Your task to perform on an android device: turn on the 24-hour format for clock Image 0: 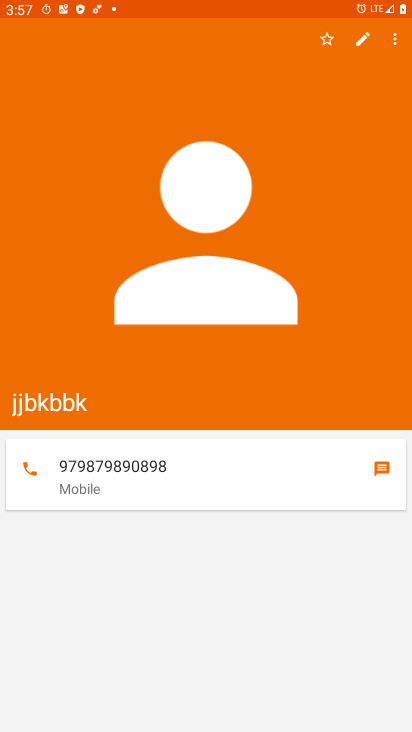
Step 0: press home button
Your task to perform on an android device: turn on the 24-hour format for clock Image 1: 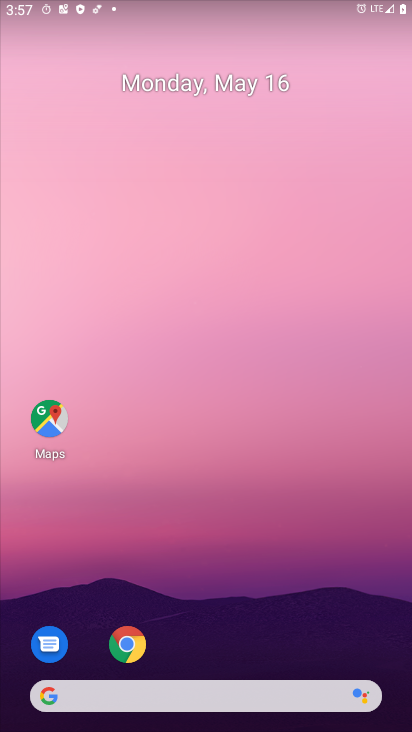
Step 1: drag from (280, 699) to (303, 188)
Your task to perform on an android device: turn on the 24-hour format for clock Image 2: 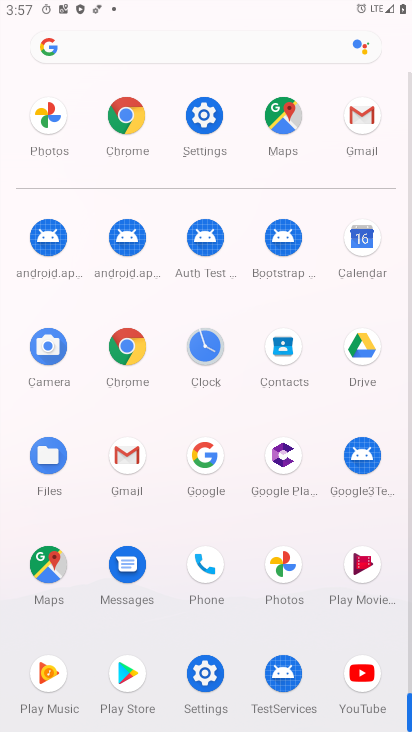
Step 2: click (202, 341)
Your task to perform on an android device: turn on the 24-hour format for clock Image 3: 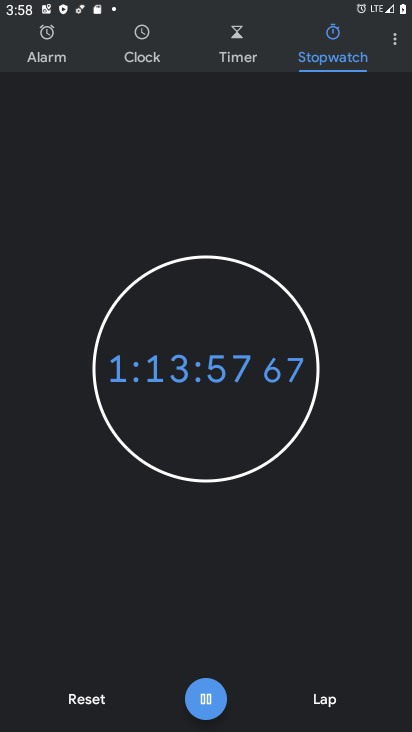
Step 3: click (390, 49)
Your task to perform on an android device: turn on the 24-hour format for clock Image 4: 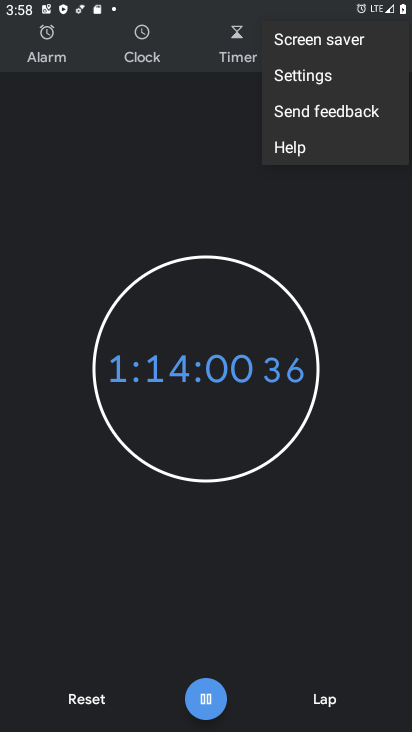
Step 4: click (339, 88)
Your task to perform on an android device: turn on the 24-hour format for clock Image 5: 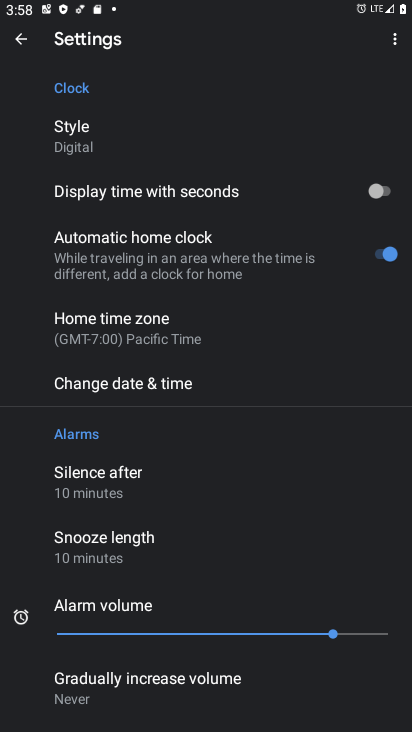
Step 5: click (174, 380)
Your task to perform on an android device: turn on the 24-hour format for clock Image 6: 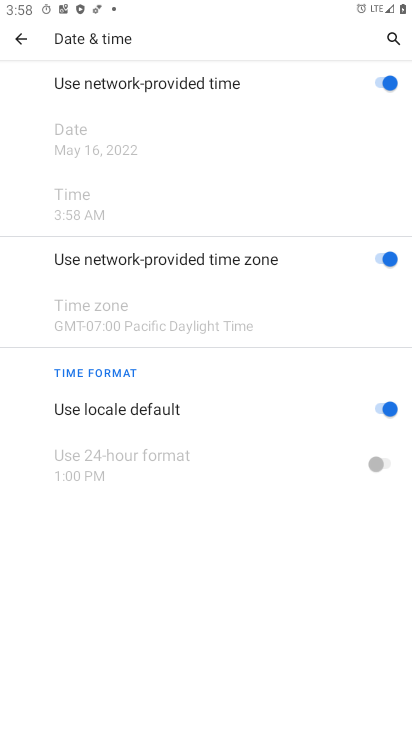
Step 6: task complete